Your task to perform on an android device: Do I have any events today? Image 0: 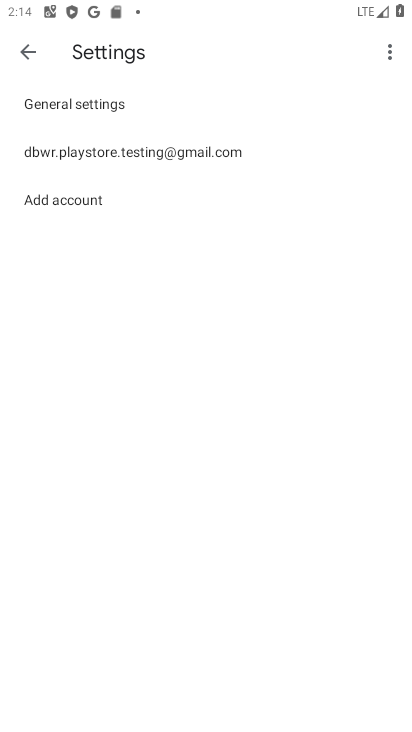
Step 0: press home button
Your task to perform on an android device: Do I have any events today? Image 1: 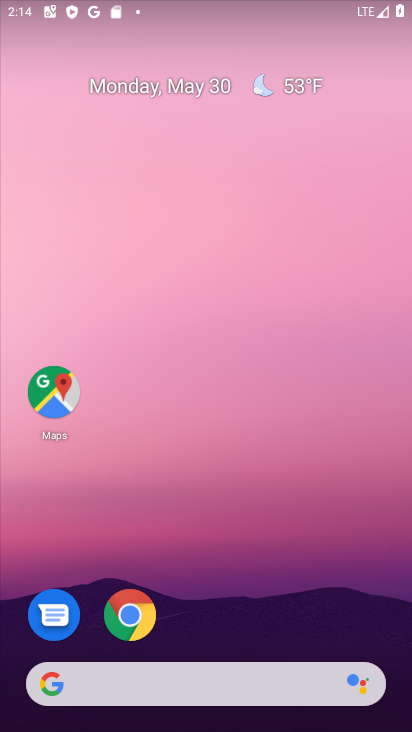
Step 1: drag from (324, 608) to (314, 300)
Your task to perform on an android device: Do I have any events today? Image 2: 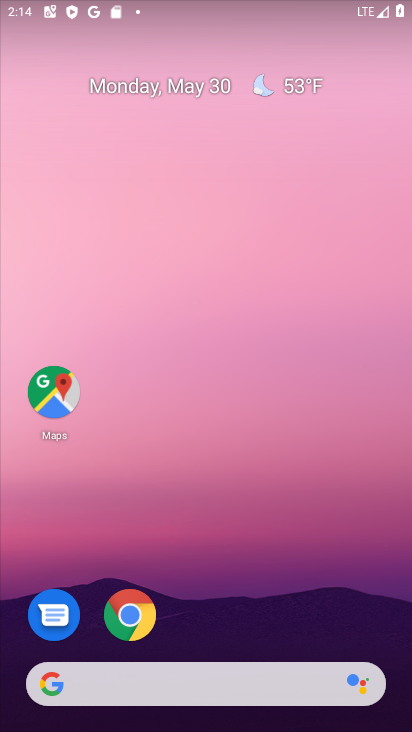
Step 2: drag from (313, 365) to (309, 553)
Your task to perform on an android device: Do I have any events today? Image 3: 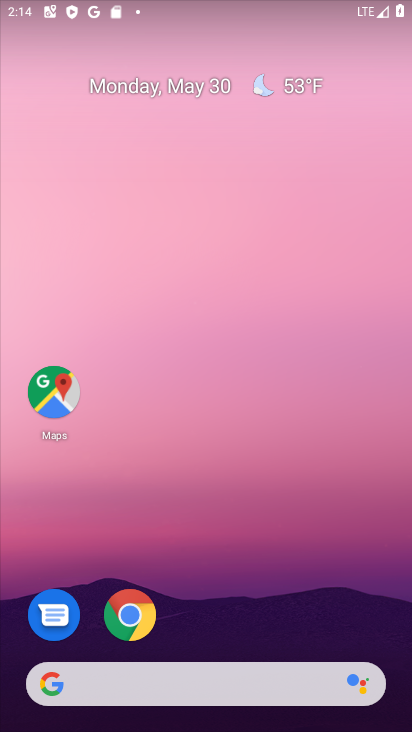
Step 3: drag from (316, 646) to (321, 347)
Your task to perform on an android device: Do I have any events today? Image 4: 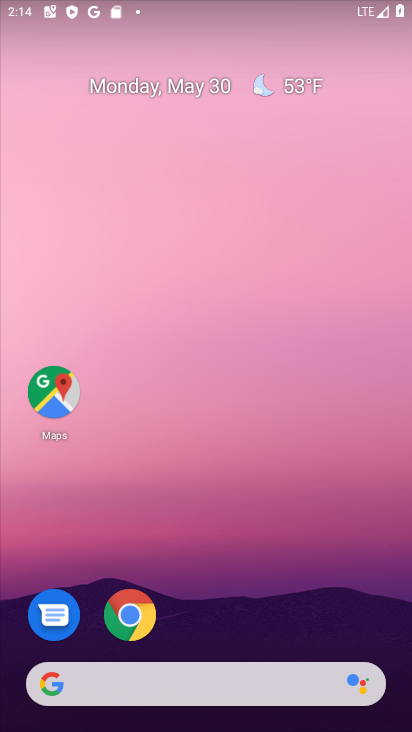
Step 4: drag from (301, 638) to (348, 103)
Your task to perform on an android device: Do I have any events today? Image 5: 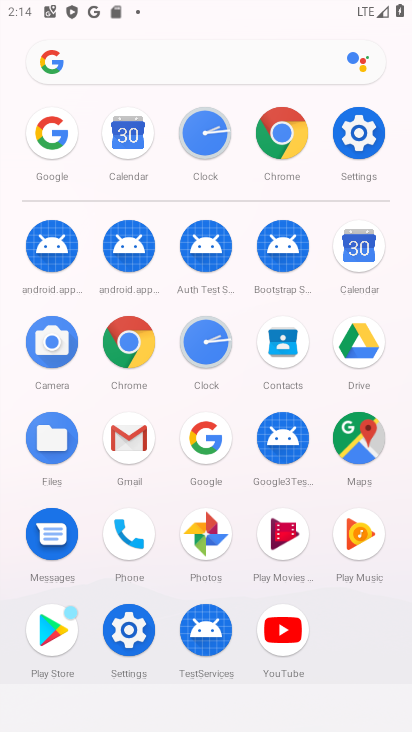
Step 5: click (350, 236)
Your task to perform on an android device: Do I have any events today? Image 6: 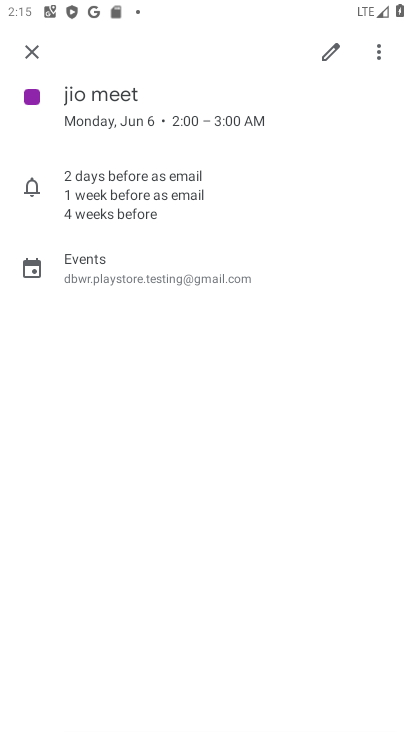
Step 6: click (26, 60)
Your task to perform on an android device: Do I have any events today? Image 7: 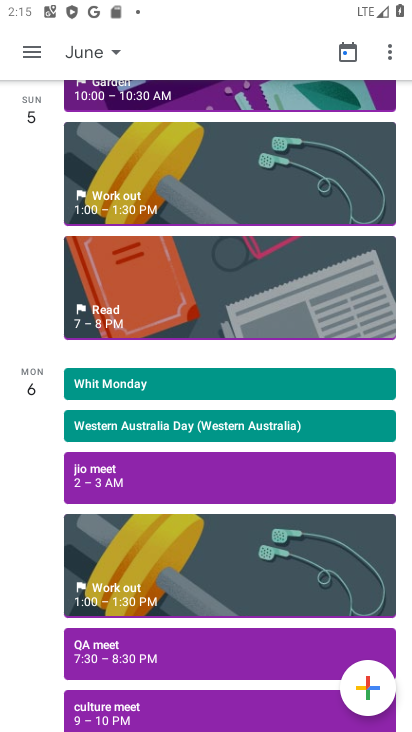
Step 7: click (99, 40)
Your task to perform on an android device: Do I have any events today? Image 8: 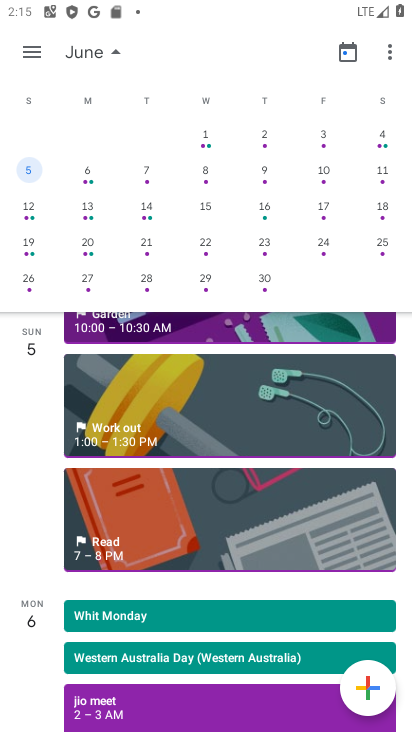
Step 8: drag from (33, 176) to (364, 190)
Your task to perform on an android device: Do I have any events today? Image 9: 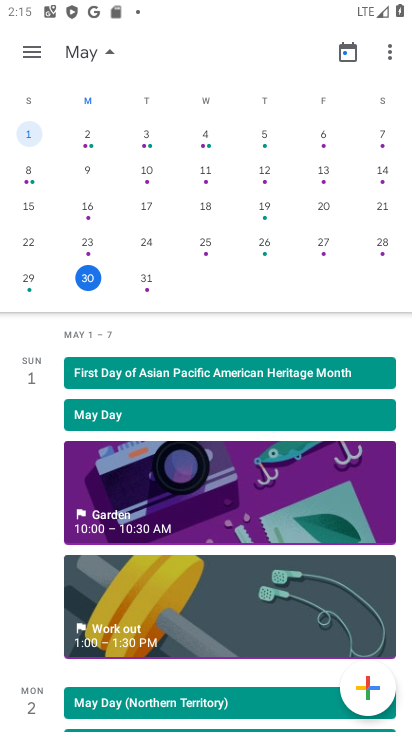
Step 9: click (89, 284)
Your task to perform on an android device: Do I have any events today? Image 10: 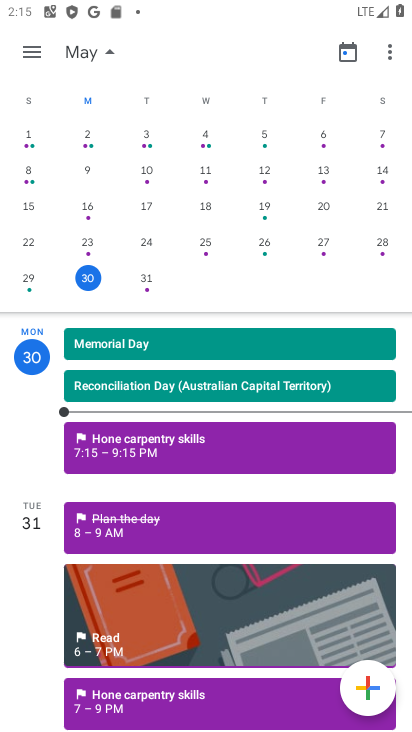
Step 10: click (27, 49)
Your task to perform on an android device: Do I have any events today? Image 11: 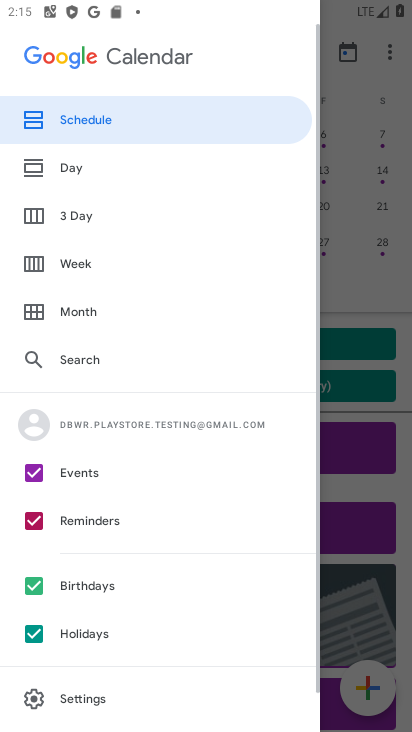
Step 11: click (63, 174)
Your task to perform on an android device: Do I have any events today? Image 12: 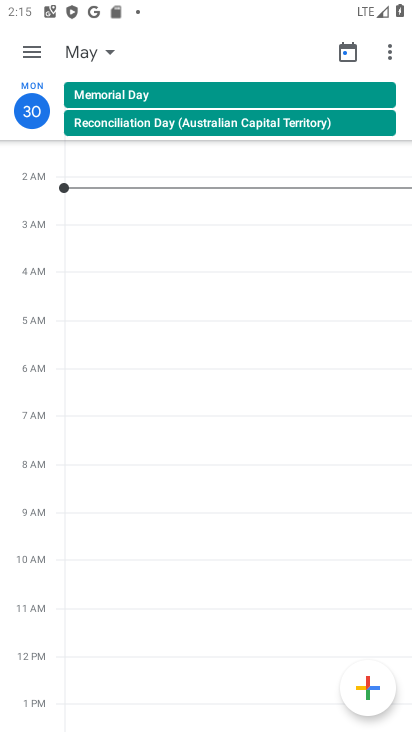
Step 12: task complete